Your task to perform on an android device: empty trash in the gmail app Image 0: 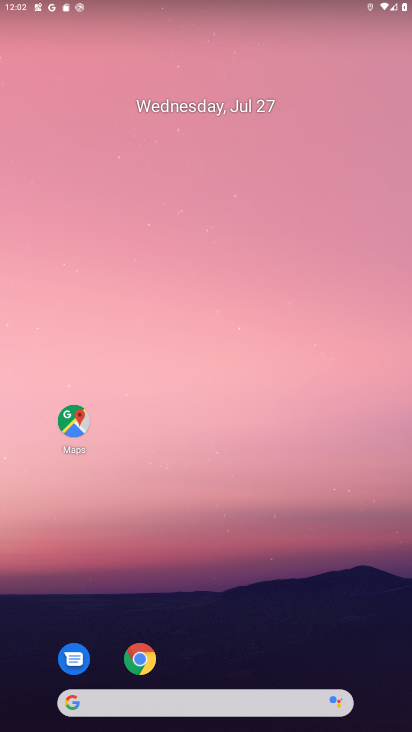
Step 0: drag from (168, 703) to (252, 8)
Your task to perform on an android device: empty trash in the gmail app Image 1: 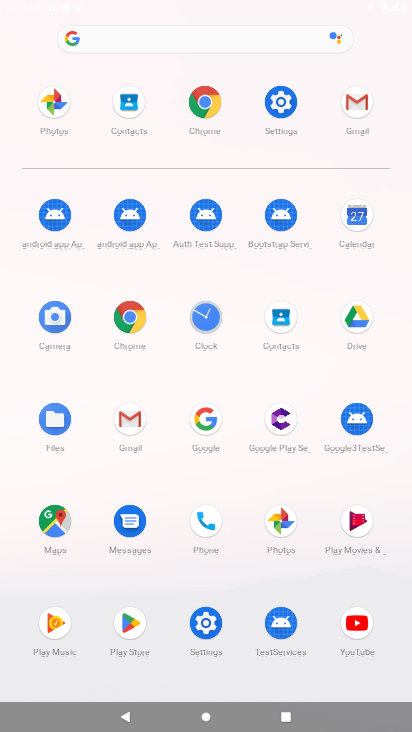
Step 1: click (135, 419)
Your task to perform on an android device: empty trash in the gmail app Image 2: 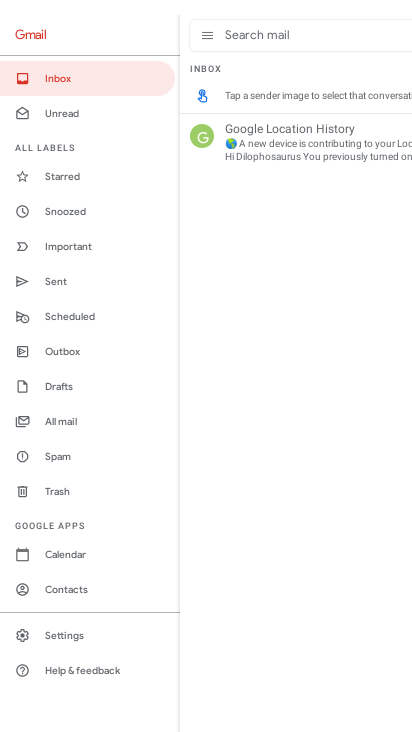
Step 2: click (66, 486)
Your task to perform on an android device: empty trash in the gmail app Image 3: 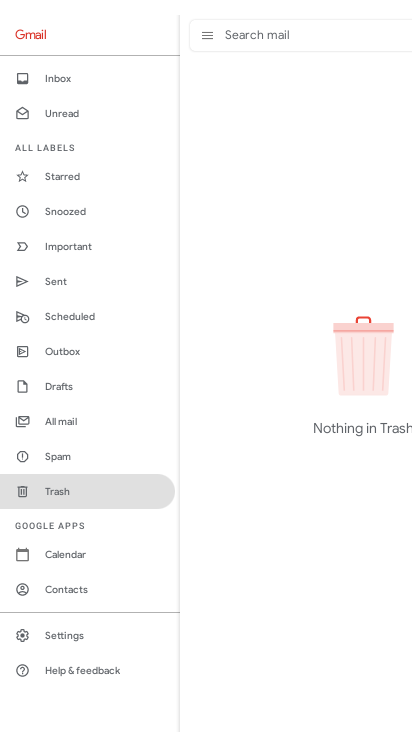
Step 3: task complete